Your task to perform on an android device: Open ESPN.com Image 0: 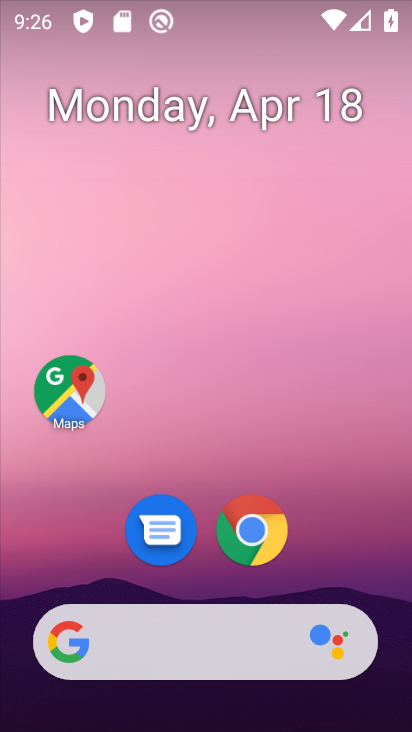
Step 0: click (260, 531)
Your task to perform on an android device: Open ESPN.com Image 1: 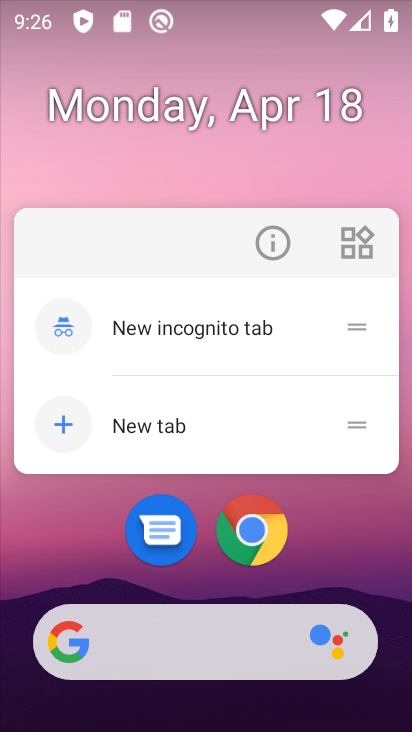
Step 1: click (249, 532)
Your task to perform on an android device: Open ESPN.com Image 2: 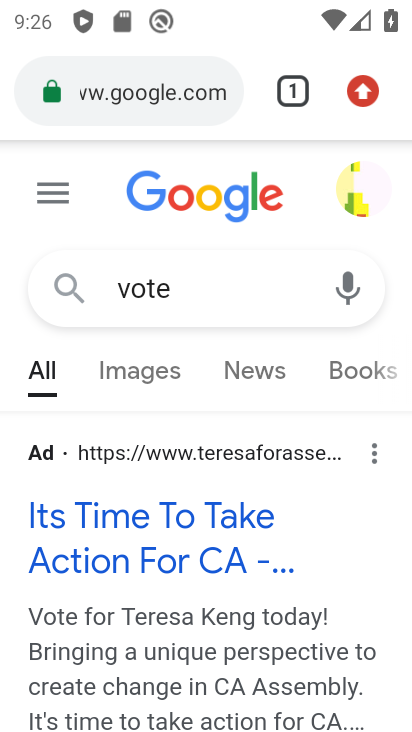
Step 2: click (360, 101)
Your task to perform on an android device: Open ESPN.com Image 3: 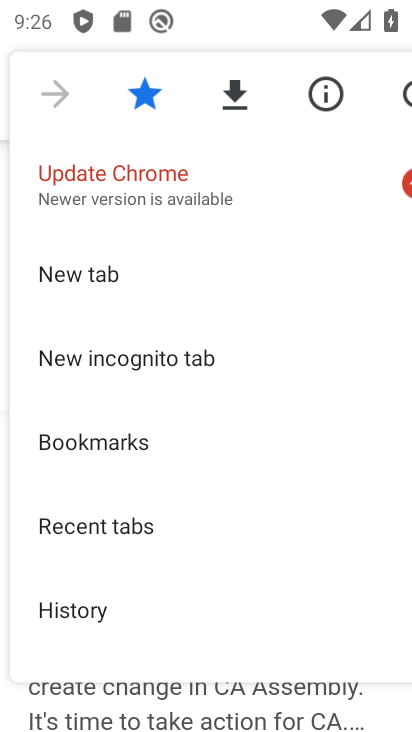
Step 3: click (86, 276)
Your task to perform on an android device: Open ESPN.com Image 4: 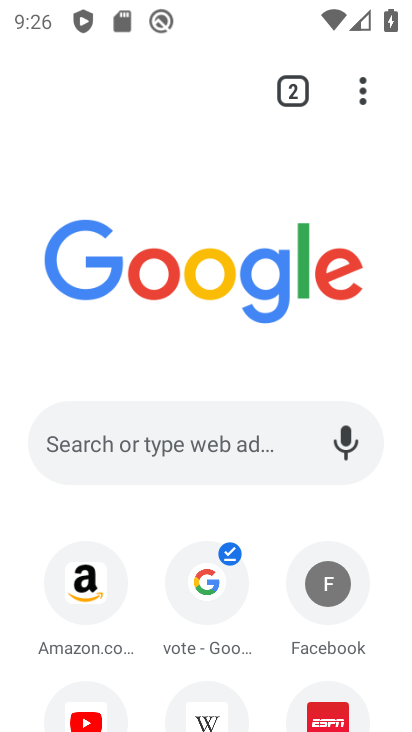
Step 4: drag from (275, 573) to (279, 387)
Your task to perform on an android device: Open ESPN.com Image 5: 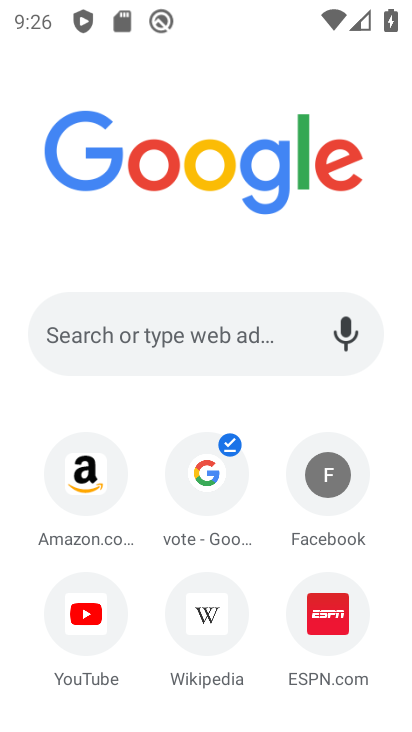
Step 5: click (324, 611)
Your task to perform on an android device: Open ESPN.com Image 6: 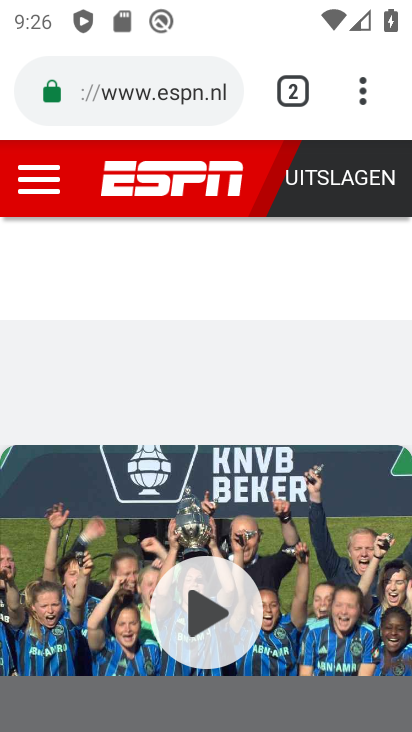
Step 6: task complete